Your task to perform on an android device: Search for apple airpods on walmart.com, select the first entry, add it to the cart, then select checkout. Image 0: 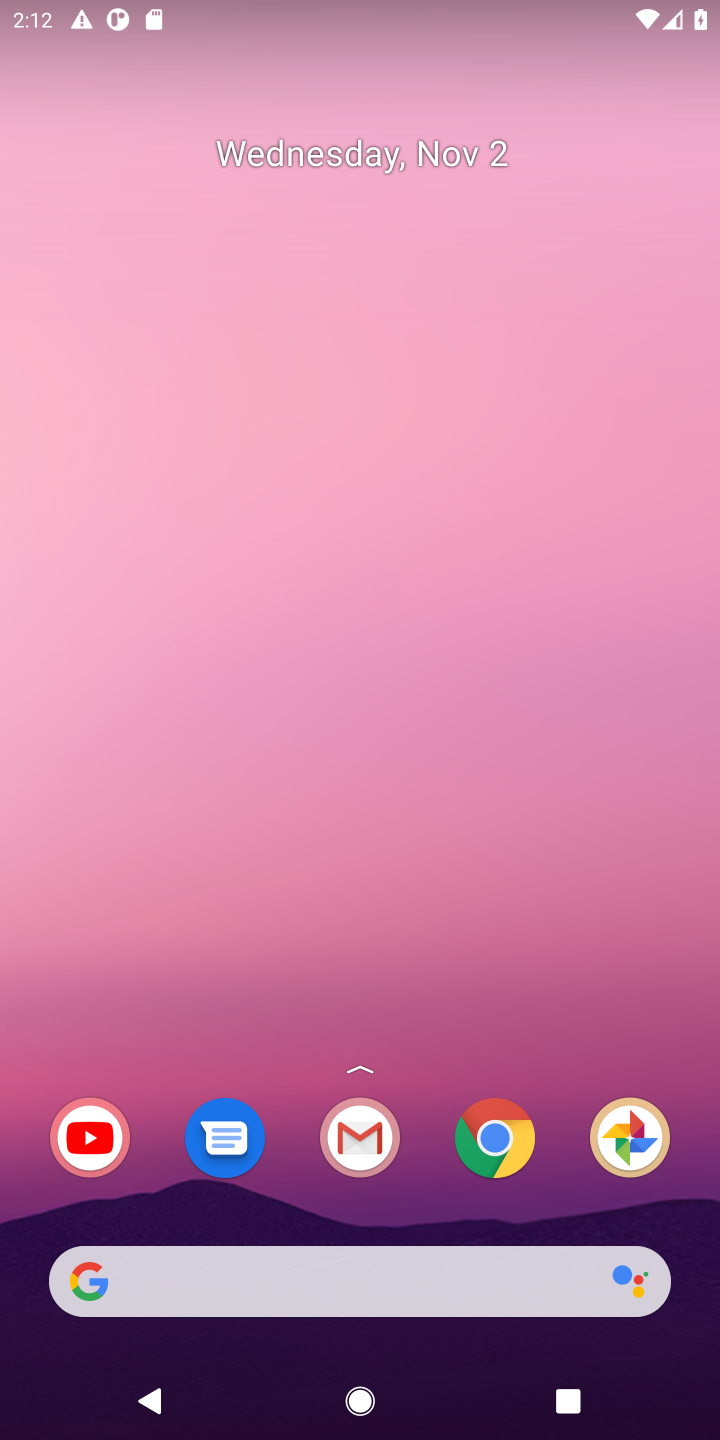
Step 0: press home button
Your task to perform on an android device: Search for apple airpods on walmart.com, select the first entry, add it to the cart, then select checkout. Image 1: 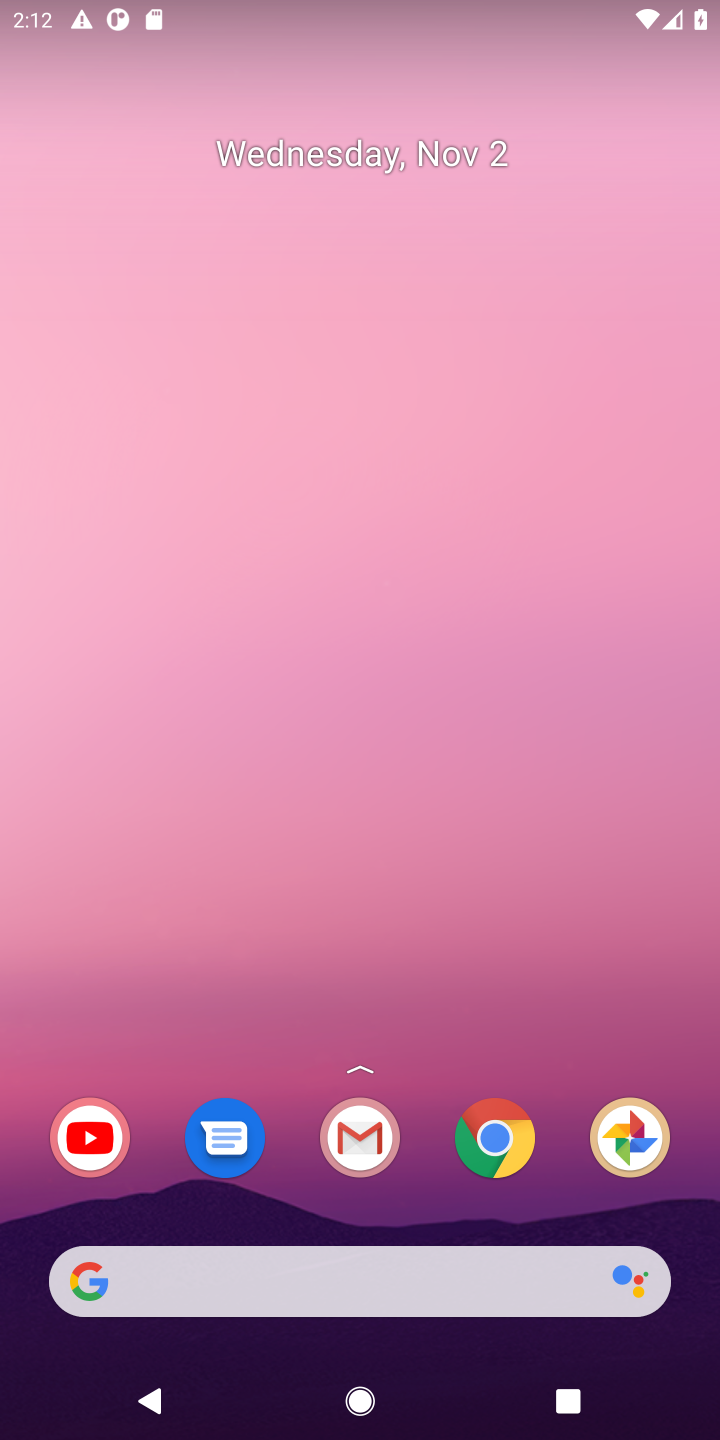
Step 1: click (344, 1249)
Your task to perform on an android device: Search for apple airpods on walmart.com, select the first entry, add it to the cart, then select checkout. Image 2: 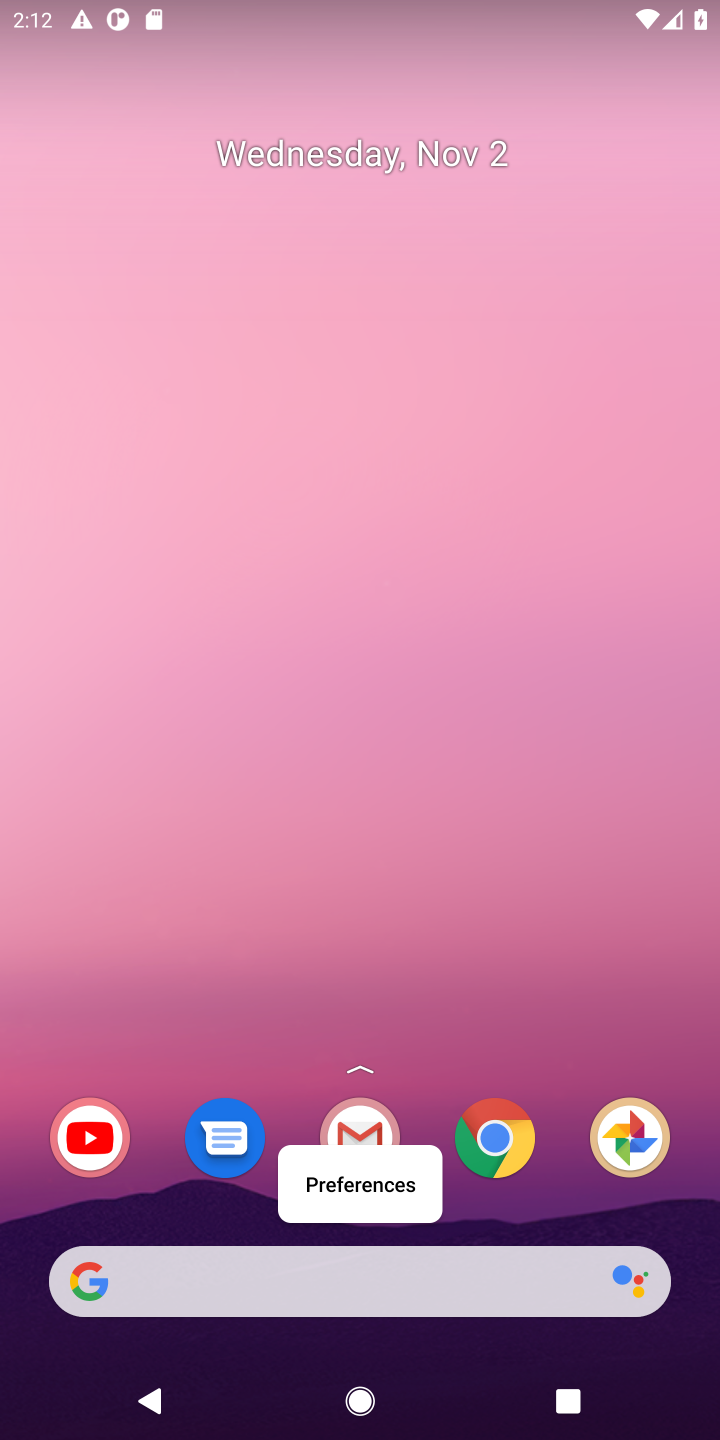
Step 2: click (126, 1275)
Your task to perform on an android device: Search for apple airpods on walmart.com, select the first entry, add it to the cart, then select checkout. Image 3: 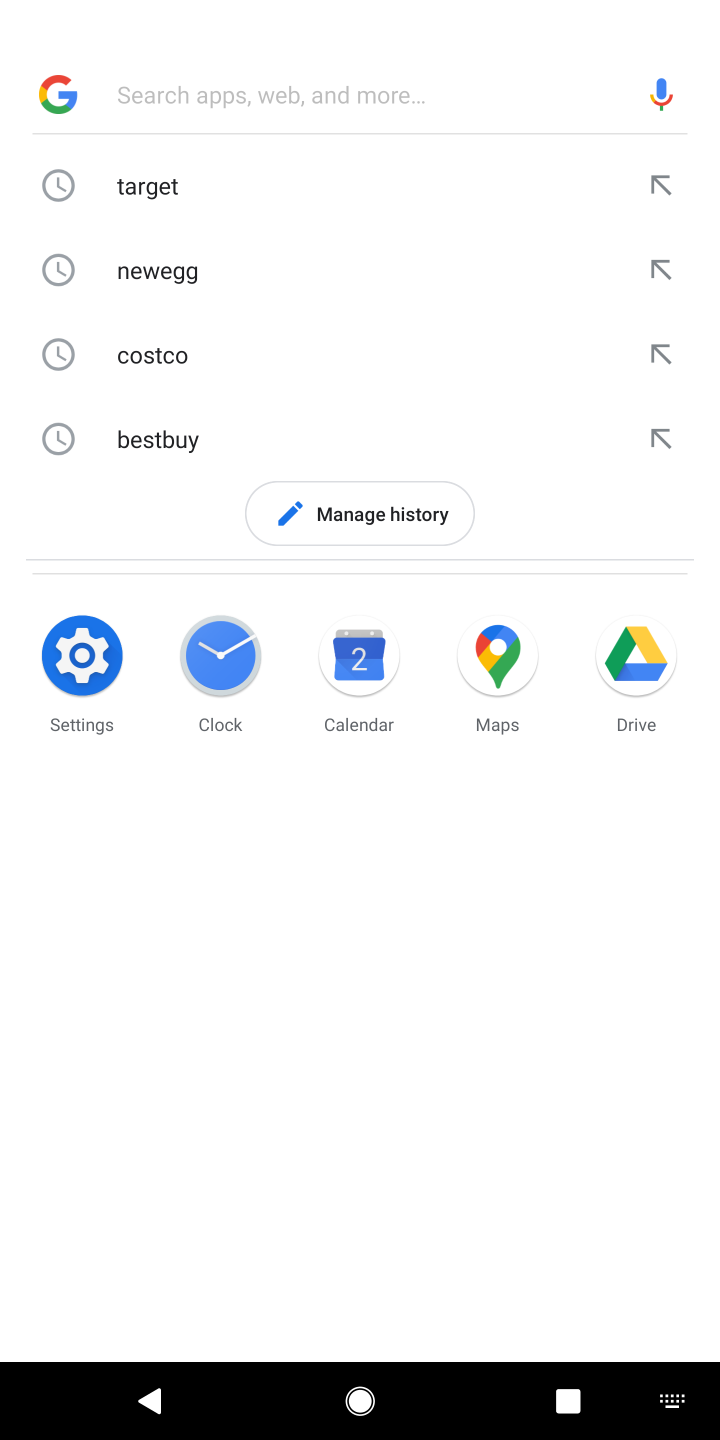
Step 3: press enter
Your task to perform on an android device: Search for apple airpods on walmart.com, select the first entry, add it to the cart, then select checkout. Image 4: 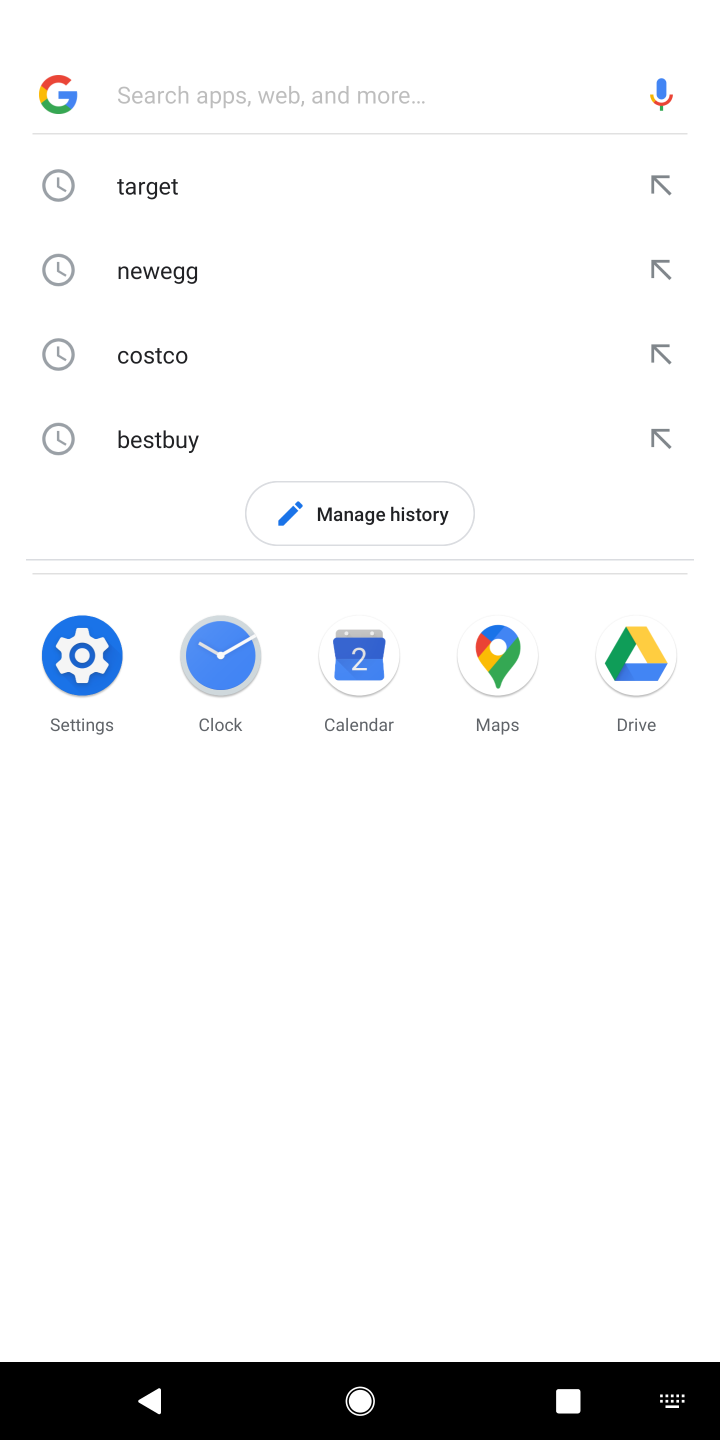
Step 4: type "walmart.com"
Your task to perform on an android device: Search for apple airpods on walmart.com, select the first entry, add it to the cart, then select checkout. Image 5: 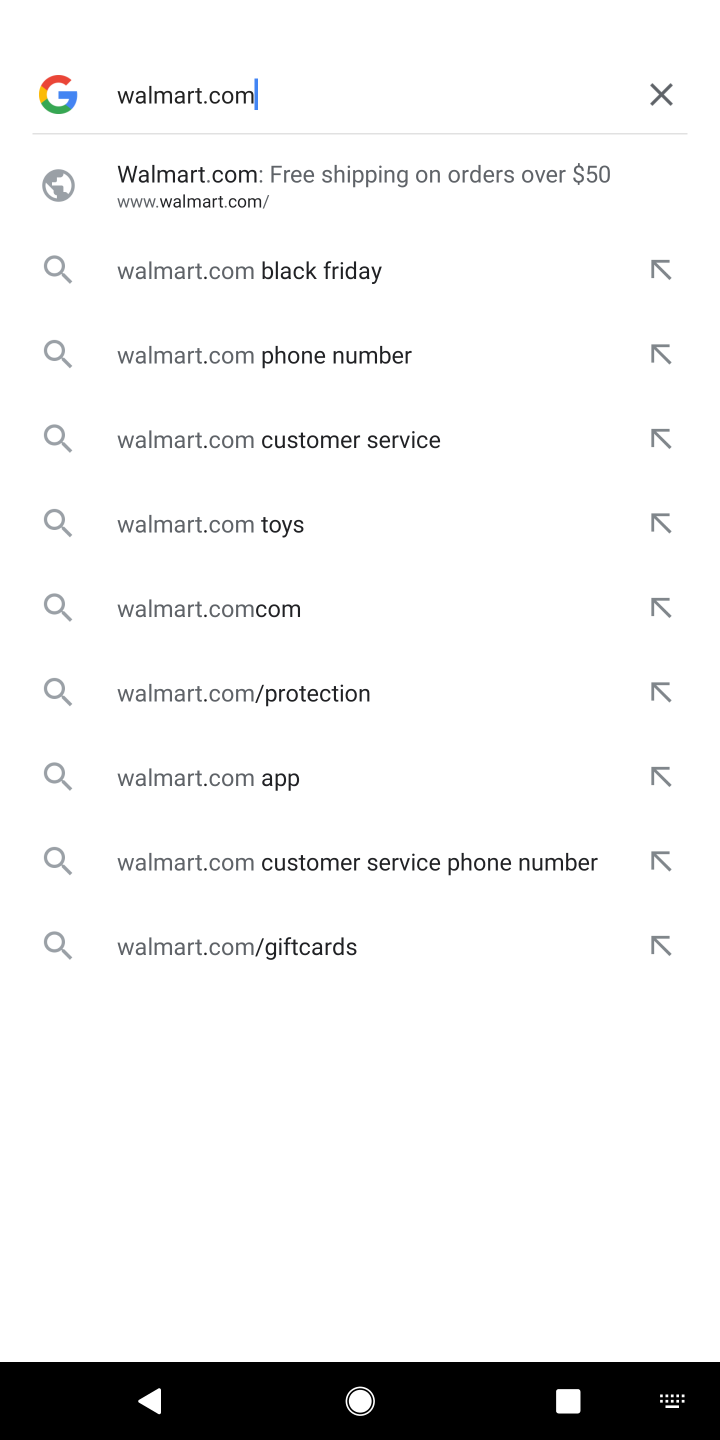
Step 5: press enter
Your task to perform on an android device: Search for apple airpods on walmart.com, select the first entry, add it to the cart, then select checkout. Image 6: 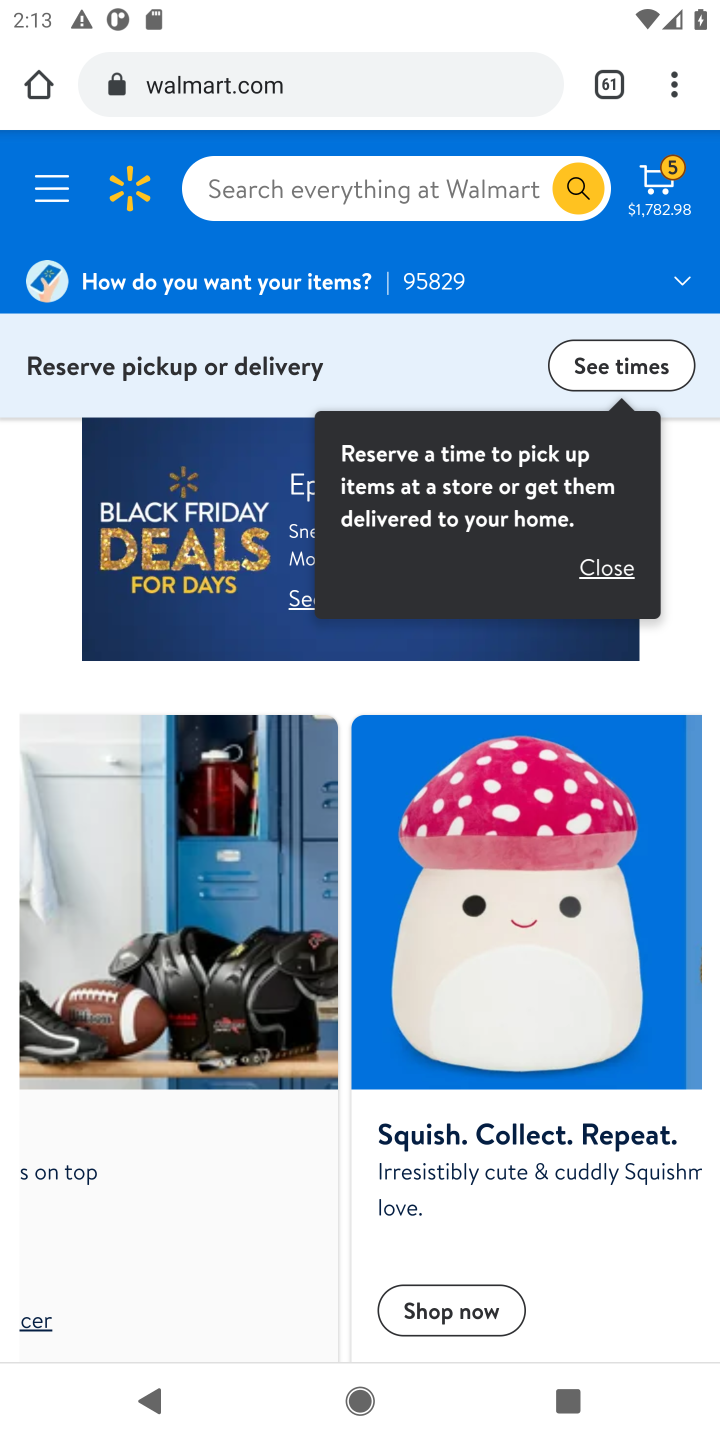
Step 6: click (278, 189)
Your task to perform on an android device: Search for apple airpods on walmart.com, select the first entry, add it to the cart, then select checkout. Image 7: 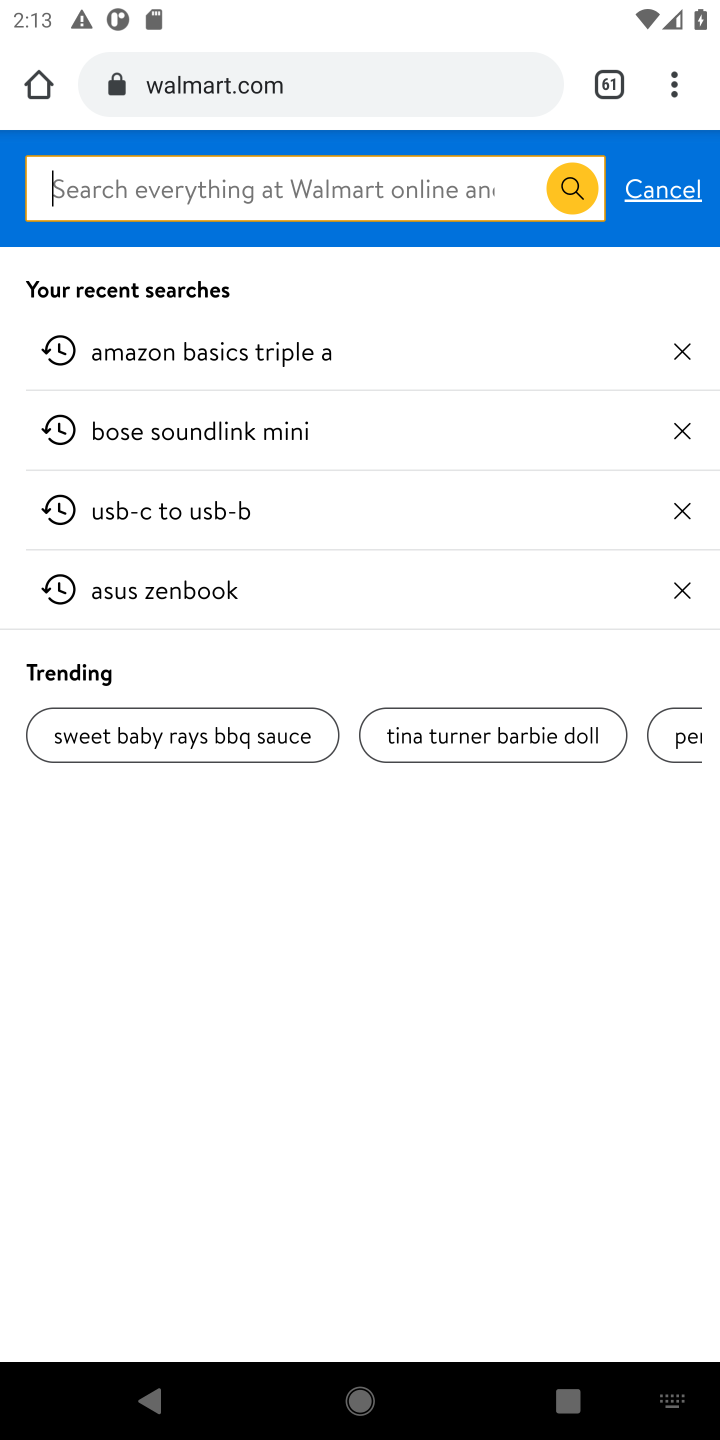
Step 7: press enter
Your task to perform on an android device: Search for apple airpods on walmart.com, select the first entry, add it to the cart, then select checkout. Image 8: 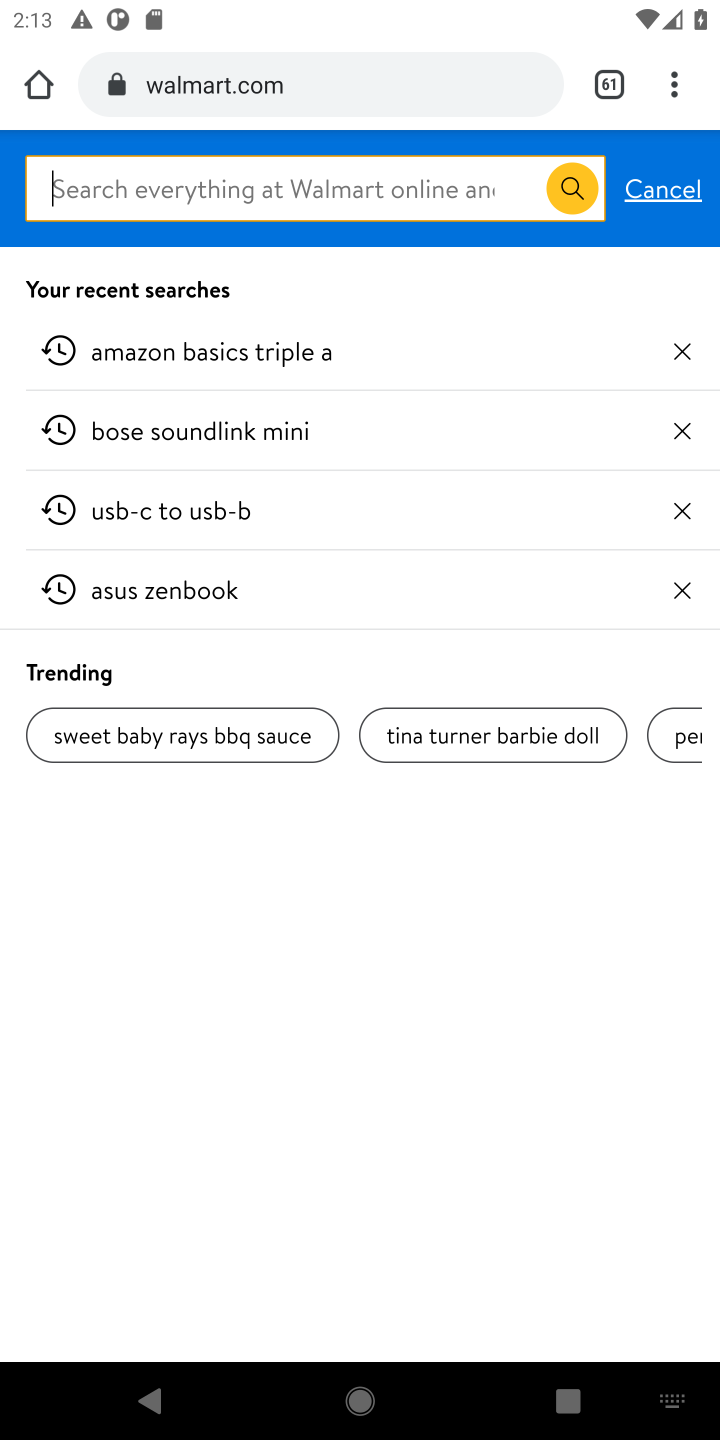
Step 8: type "apple airpods"
Your task to perform on an android device: Search for apple airpods on walmart.com, select the first entry, add it to the cart, then select checkout. Image 9: 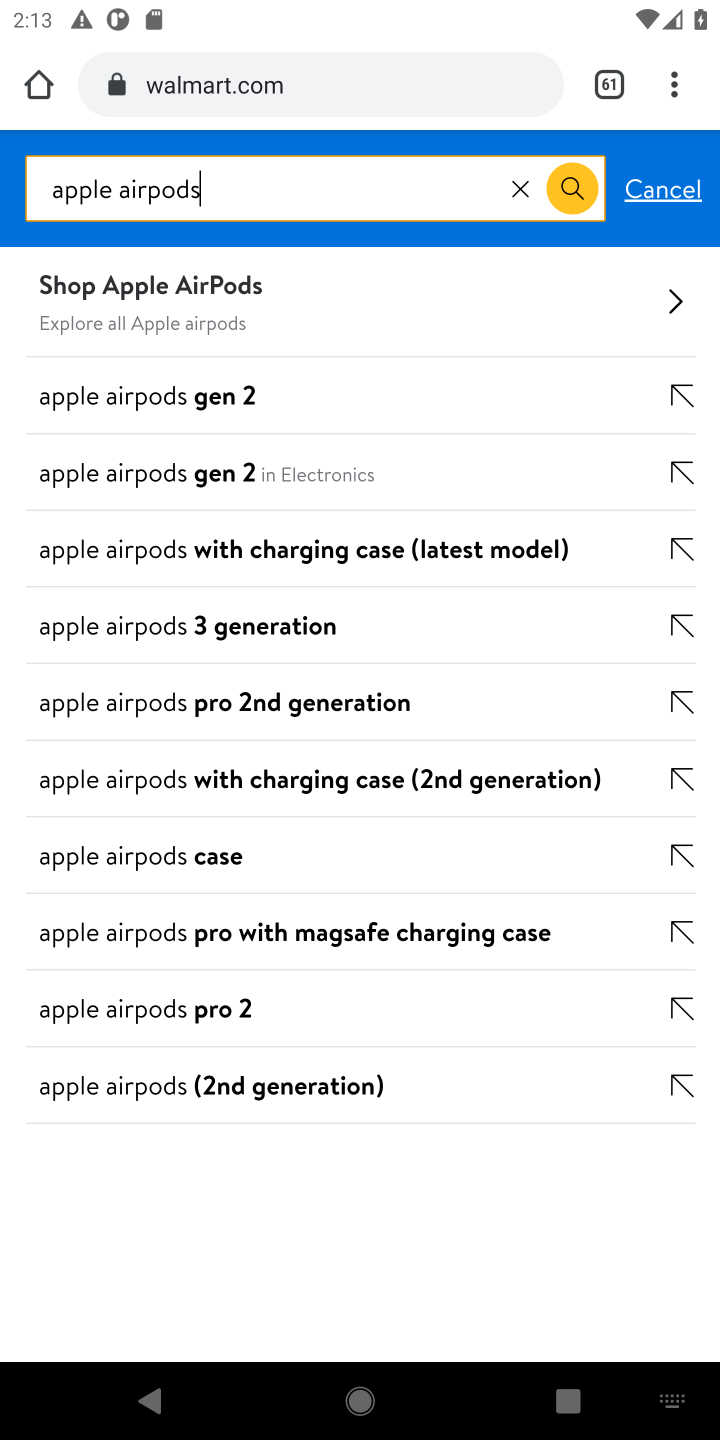
Step 9: press enter
Your task to perform on an android device: Search for apple airpods on walmart.com, select the first entry, add it to the cart, then select checkout. Image 10: 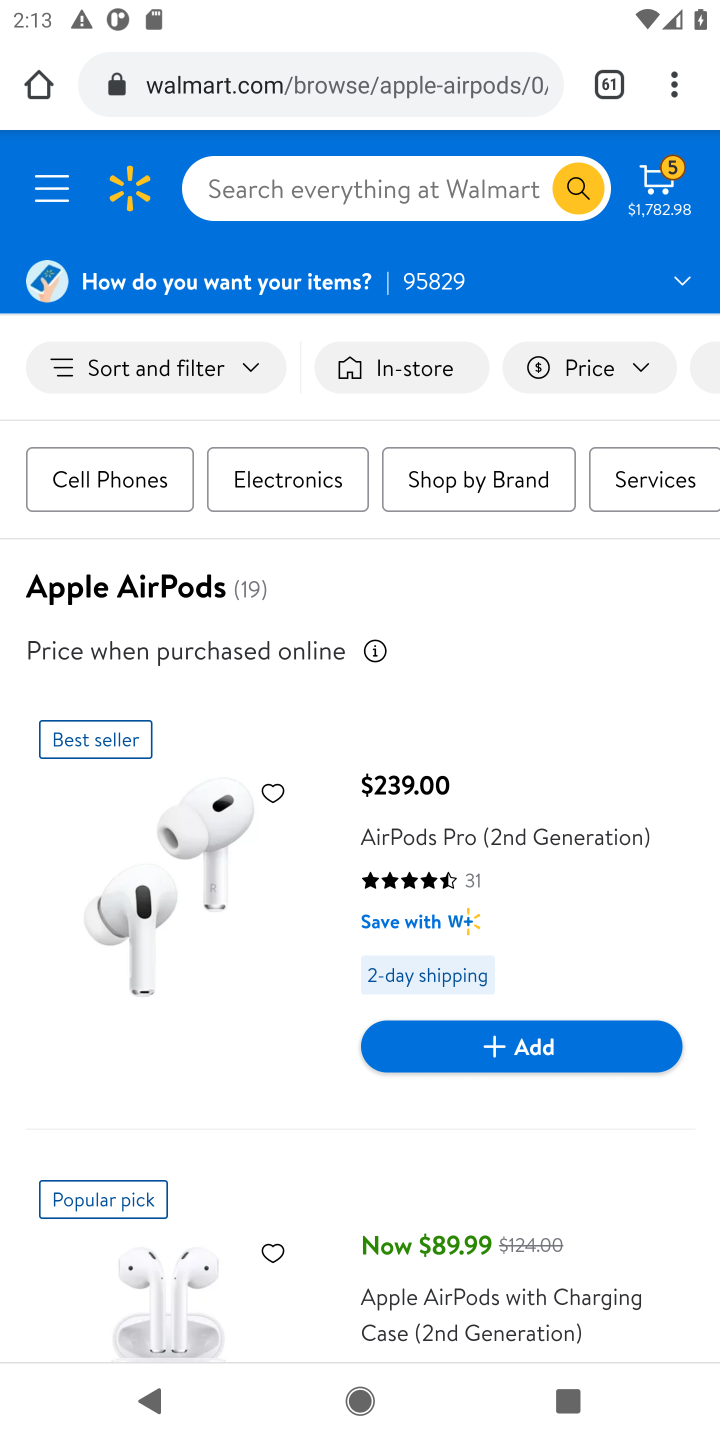
Step 10: click (560, 1048)
Your task to perform on an android device: Search for apple airpods on walmart.com, select the first entry, add it to the cart, then select checkout. Image 11: 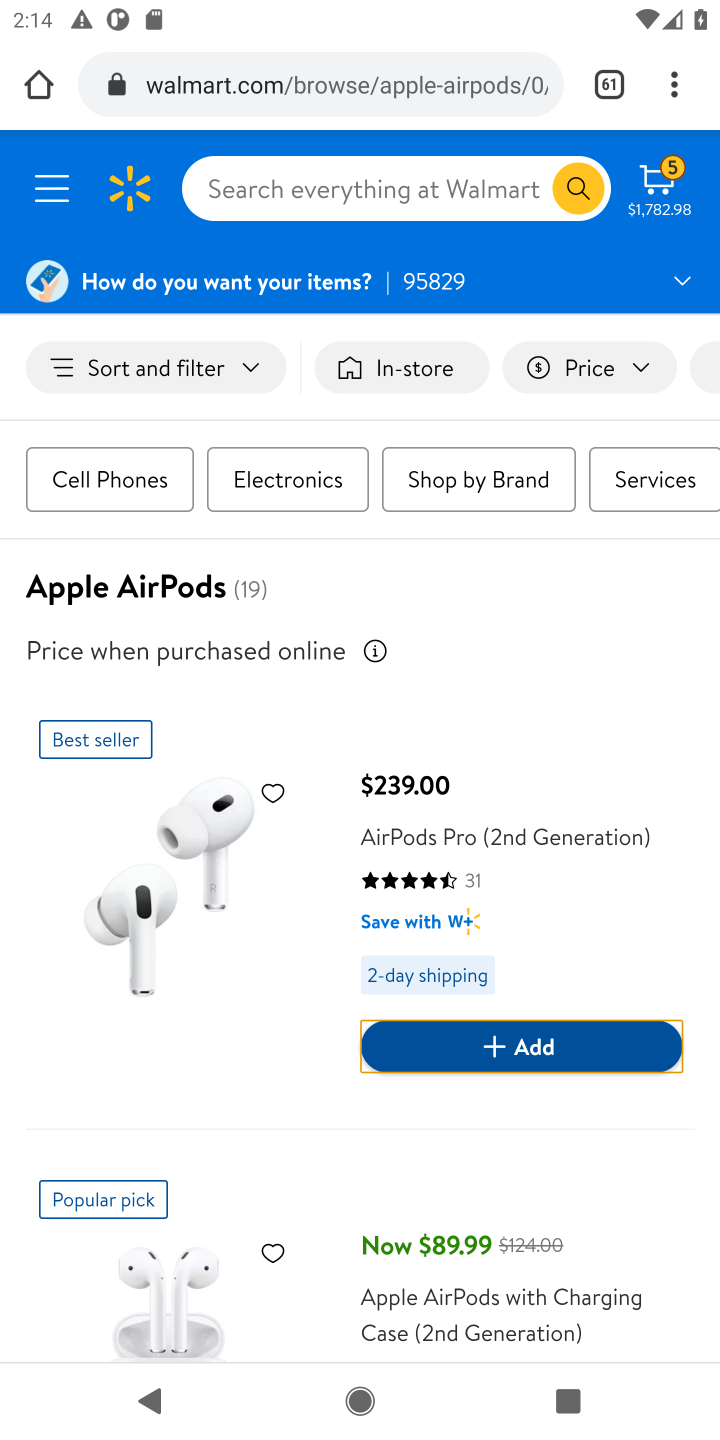
Step 11: click (523, 1051)
Your task to perform on an android device: Search for apple airpods on walmart.com, select the first entry, add it to the cart, then select checkout. Image 12: 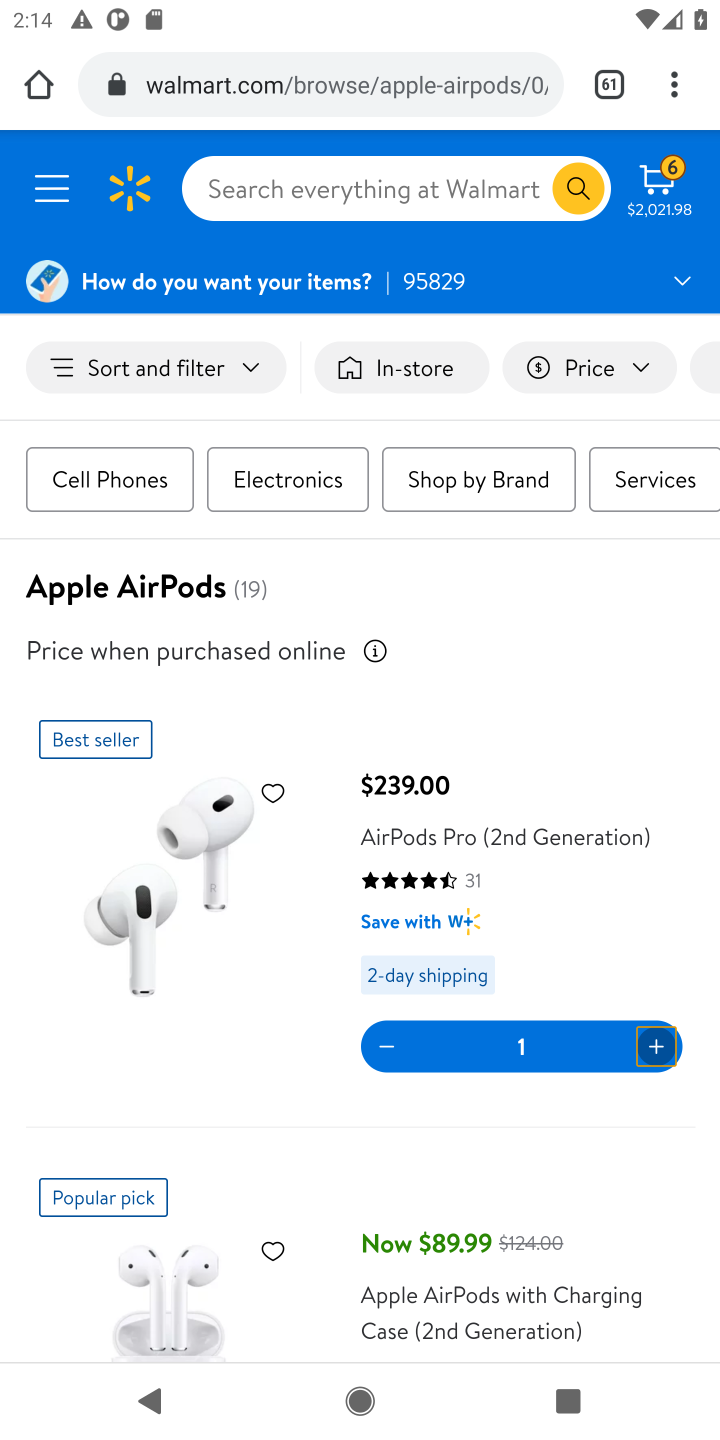
Step 12: click (672, 179)
Your task to perform on an android device: Search for apple airpods on walmart.com, select the first entry, add it to the cart, then select checkout. Image 13: 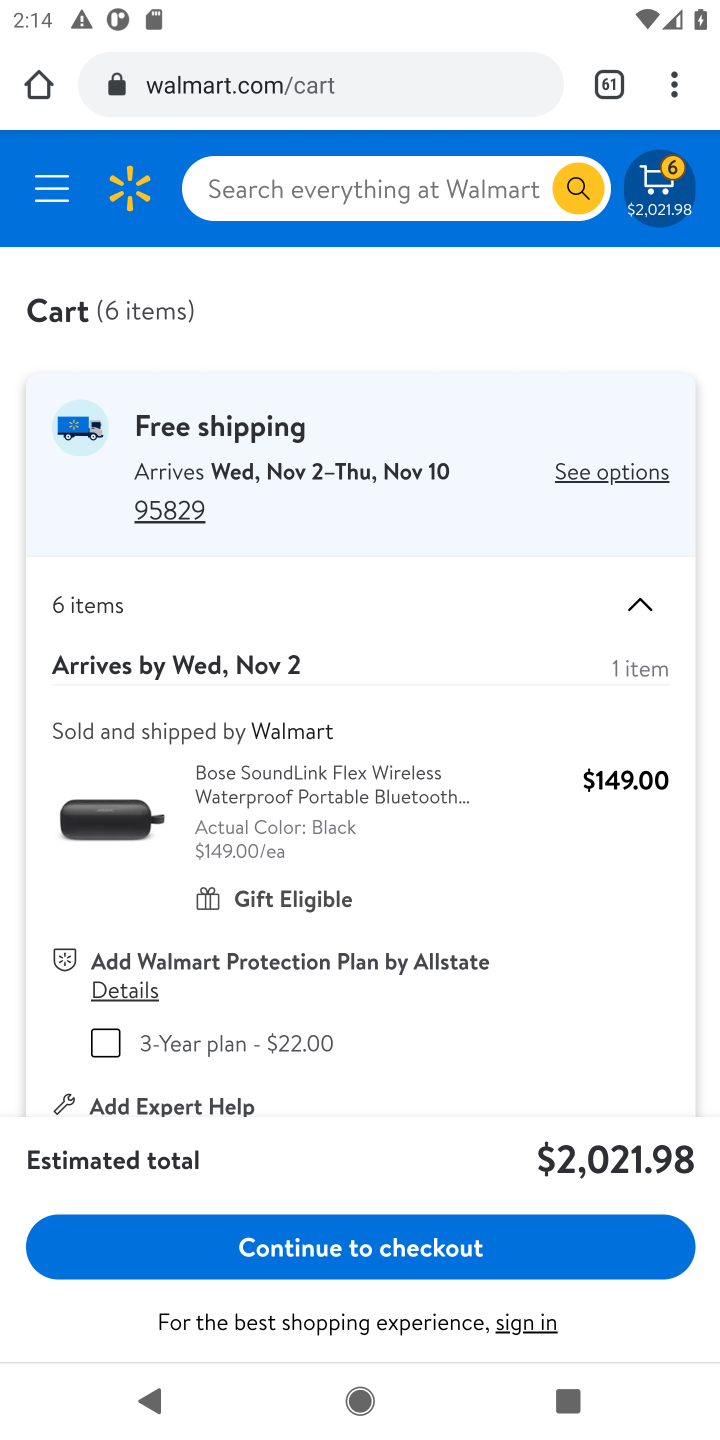
Step 13: click (342, 1257)
Your task to perform on an android device: Search for apple airpods on walmart.com, select the first entry, add it to the cart, then select checkout. Image 14: 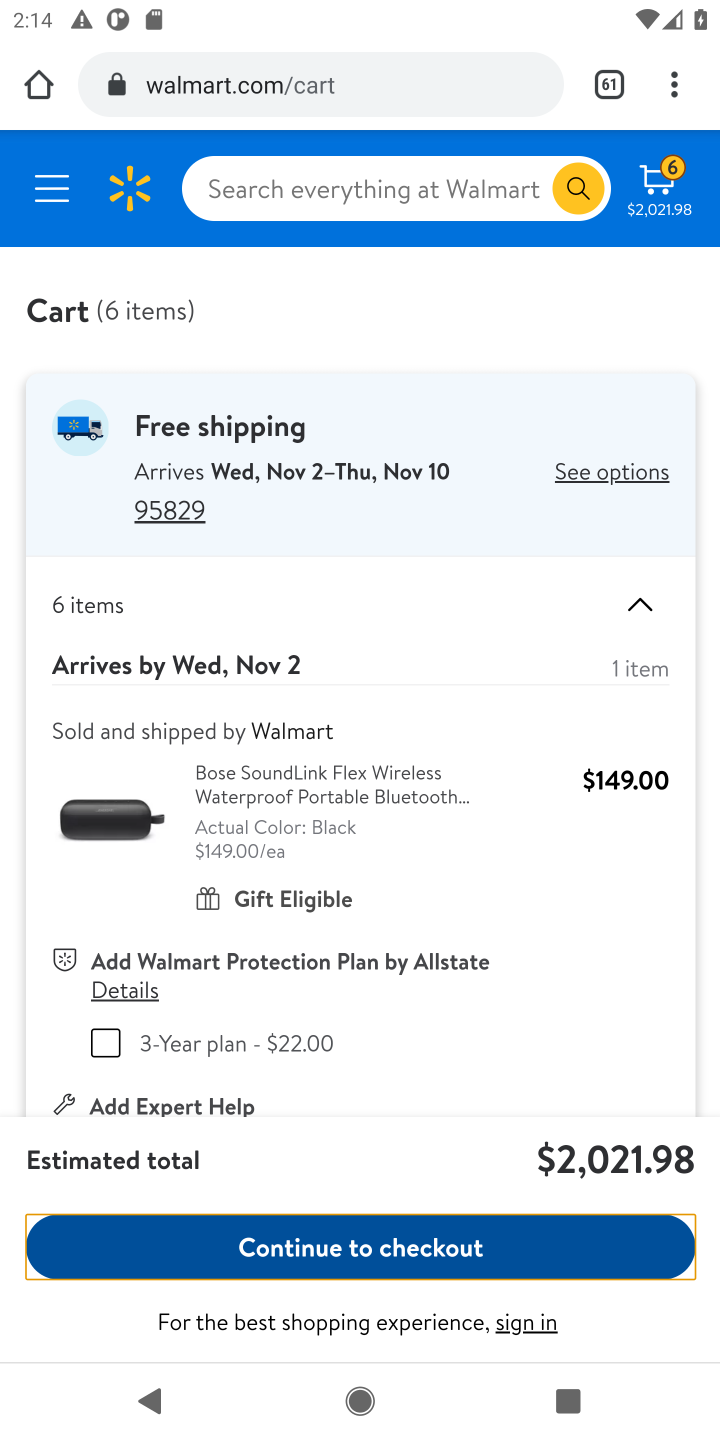
Step 14: click (326, 1242)
Your task to perform on an android device: Search for apple airpods on walmart.com, select the first entry, add it to the cart, then select checkout. Image 15: 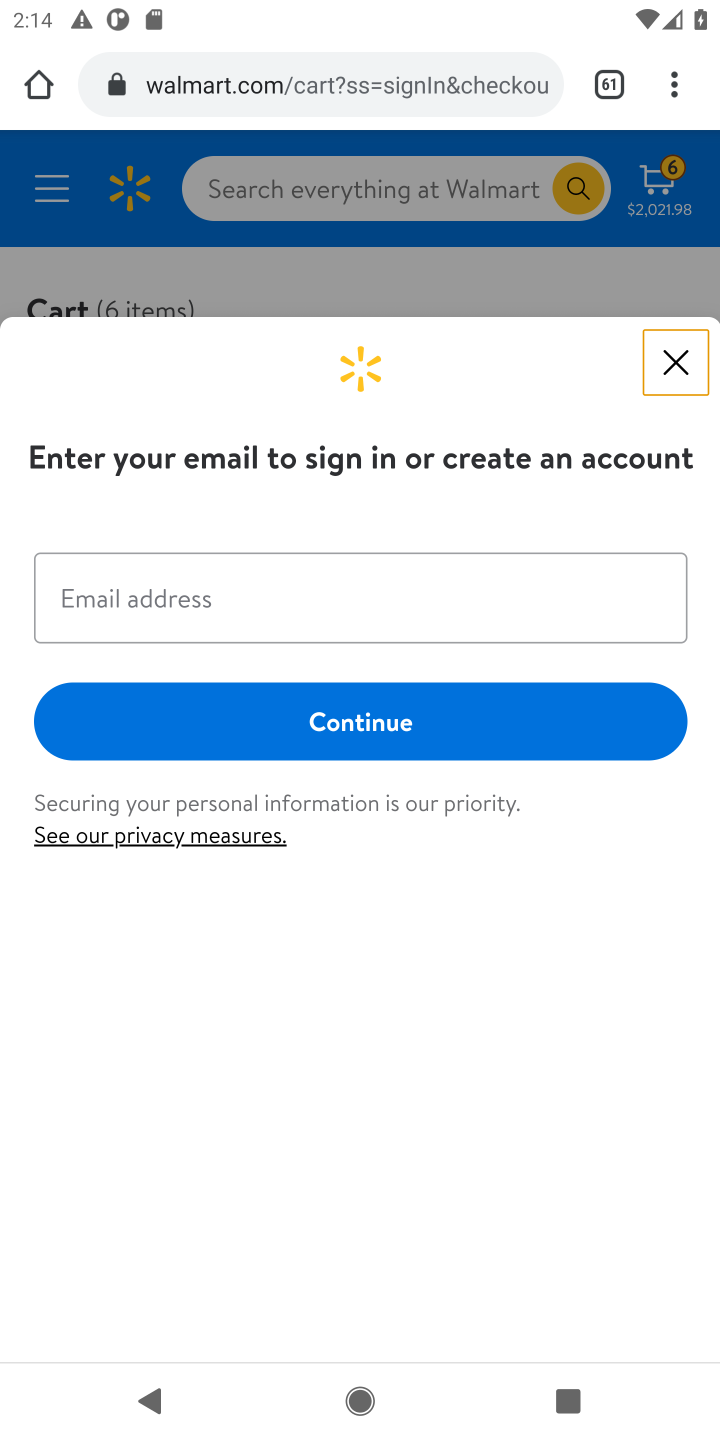
Step 15: task complete